Your task to perform on an android device: Find coffee shops on Maps Image 0: 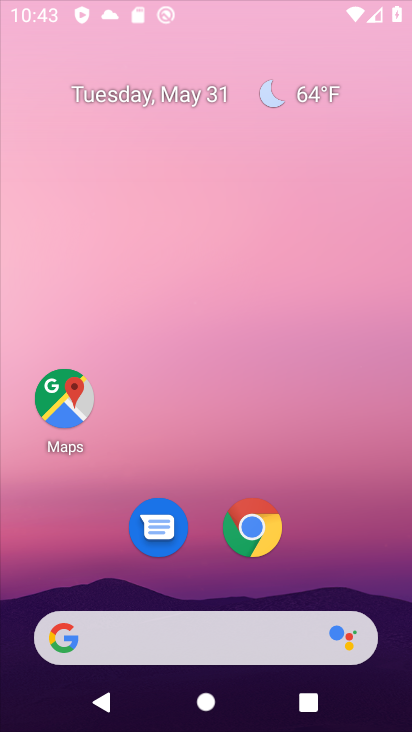
Step 0: click (288, 73)
Your task to perform on an android device: Find coffee shops on Maps Image 1: 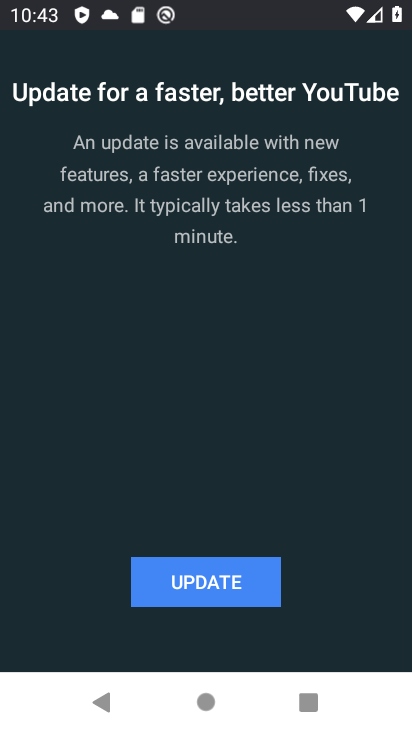
Step 1: press home button
Your task to perform on an android device: Find coffee shops on Maps Image 2: 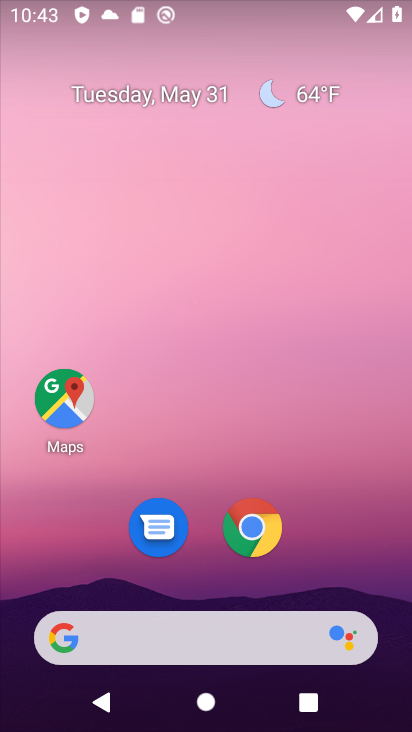
Step 2: click (51, 403)
Your task to perform on an android device: Find coffee shops on Maps Image 3: 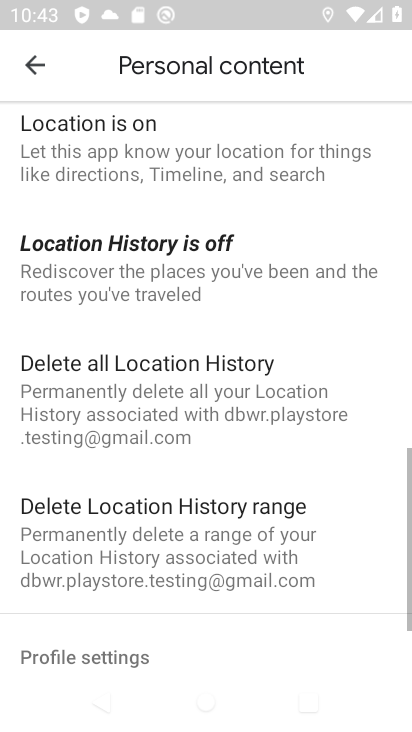
Step 3: click (36, 64)
Your task to perform on an android device: Find coffee shops on Maps Image 4: 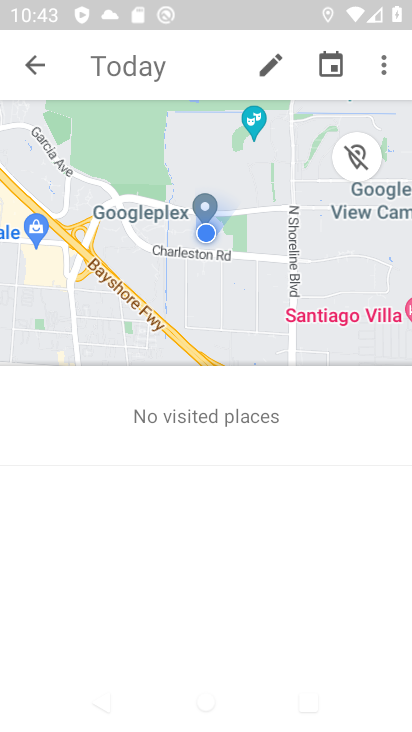
Step 4: click (28, 58)
Your task to perform on an android device: Find coffee shops on Maps Image 5: 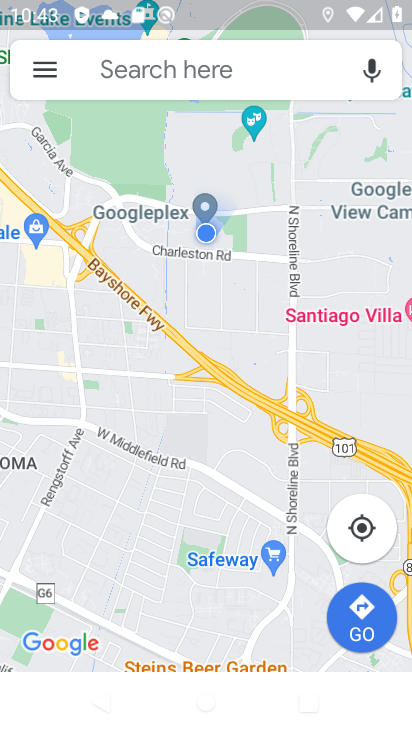
Step 5: click (279, 70)
Your task to perform on an android device: Find coffee shops on Maps Image 6: 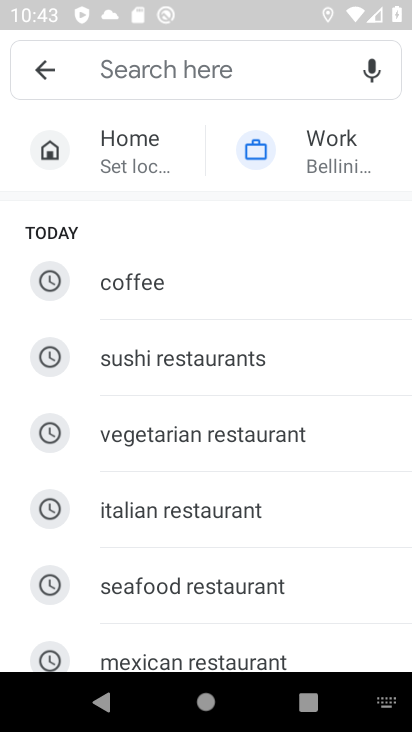
Step 6: click (124, 281)
Your task to perform on an android device: Find coffee shops on Maps Image 7: 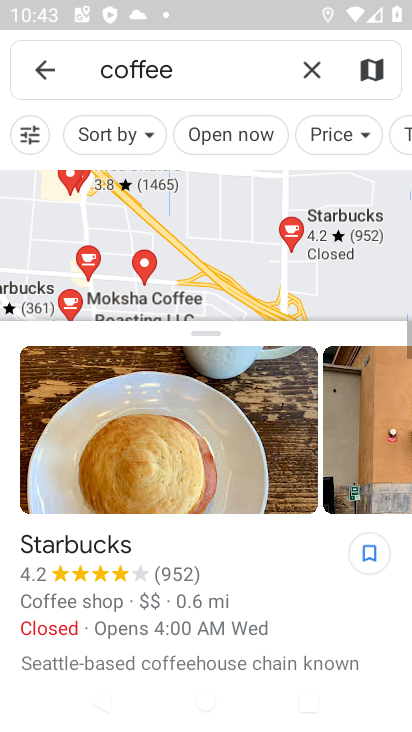
Step 7: task complete